Your task to perform on an android device: show emergency info Image 0: 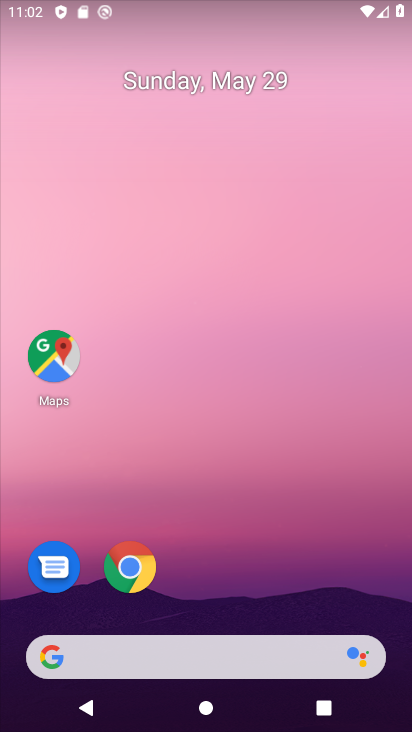
Step 0: drag from (230, 637) to (217, 112)
Your task to perform on an android device: show emergency info Image 1: 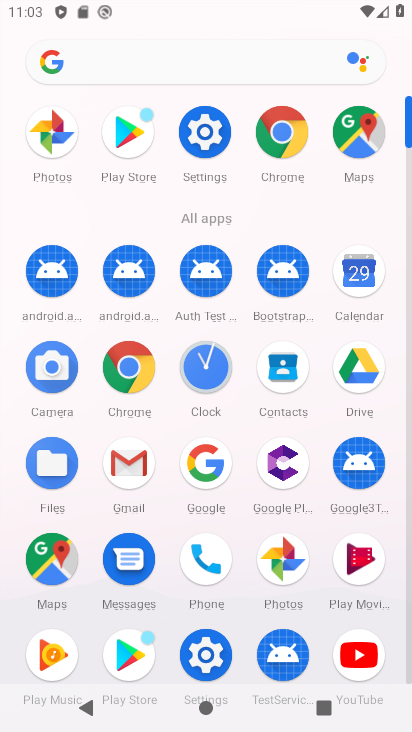
Step 1: click (197, 651)
Your task to perform on an android device: show emergency info Image 2: 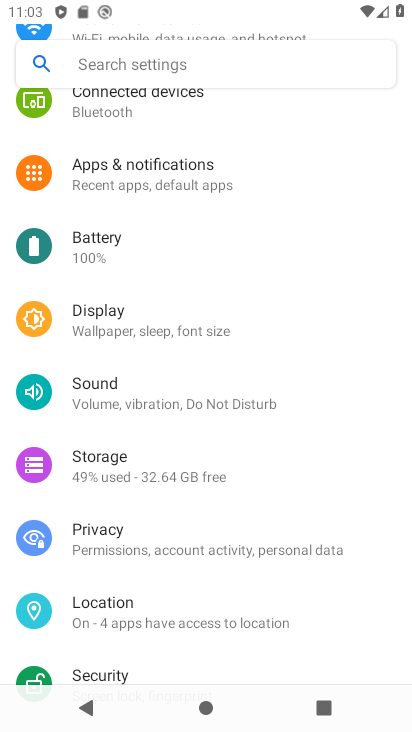
Step 2: drag from (197, 651) to (130, 201)
Your task to perform on an android device: show emergency info Image 3: 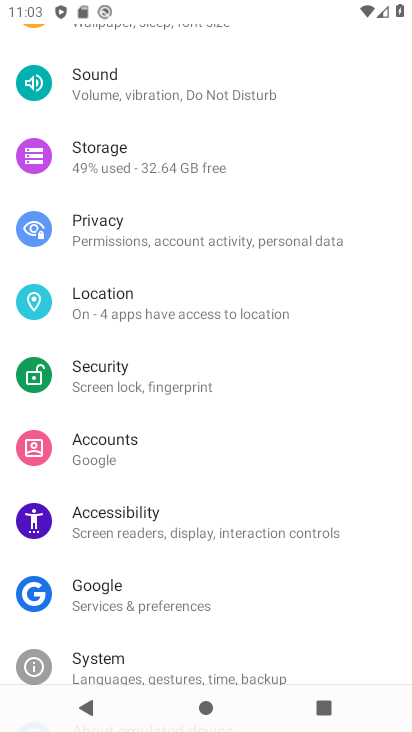
Step 3: drag from (146, 610) to (103, 138)
Your task to perform on an android device: show emergency info Image 4: 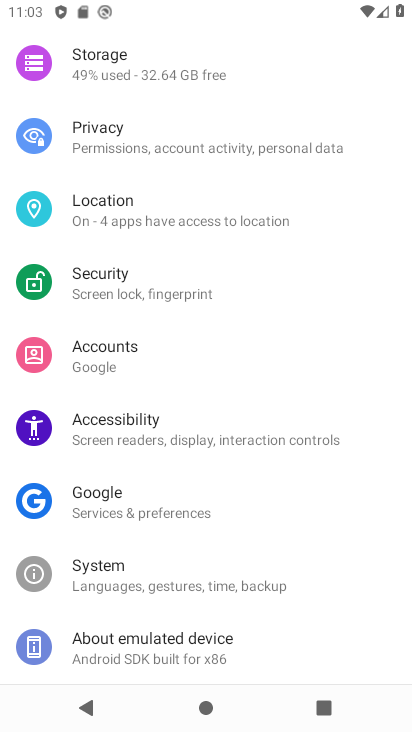
Step 4: click (130, 647)
Your task to perform on an android device: show emergency info Image 5: 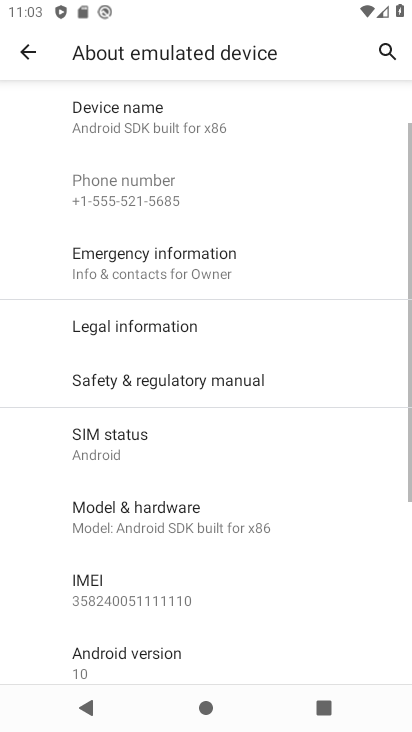
Step 5: click (168, 262)
Your task to perform on an android device: show emergency info Image 6: 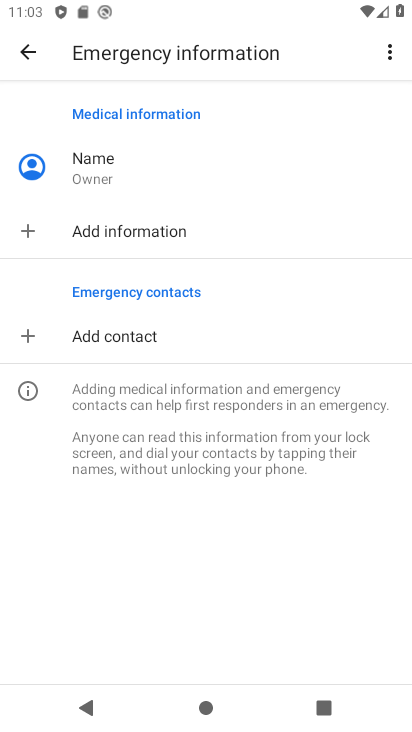
Step 6: task complete